Your task to perform on an android device: Open calendar and show me the second week of next month Image 0: 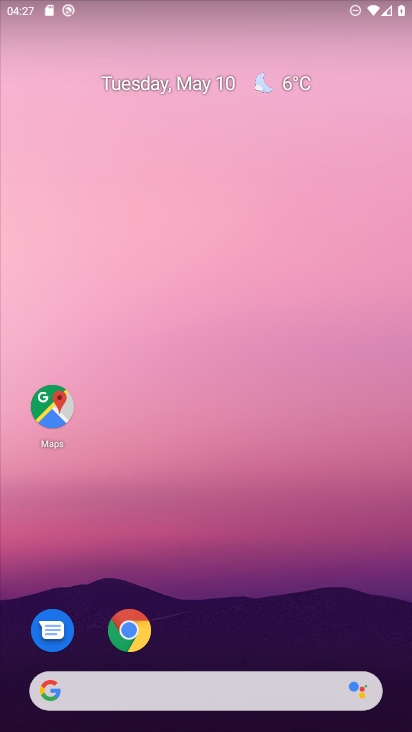
Step 0: click (162, 91)
Your task to perform on an android device: Open calendar and show me the second week of next month Image 1: 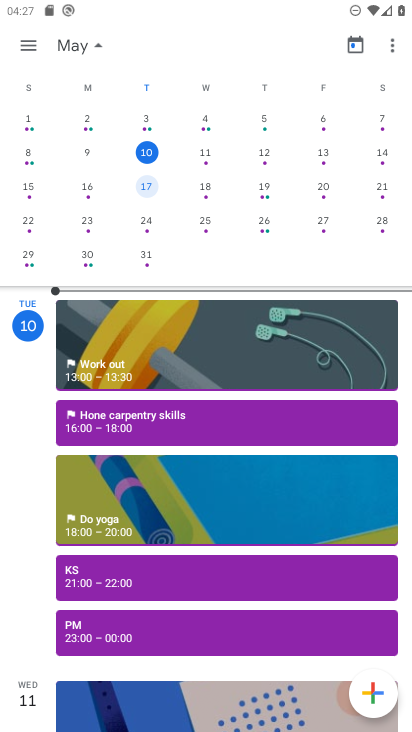
Step 1: drag from (327, 258) to (77, 65)
Your task to perform on an android device: Open calendar and show me the second week of next month Image 2: 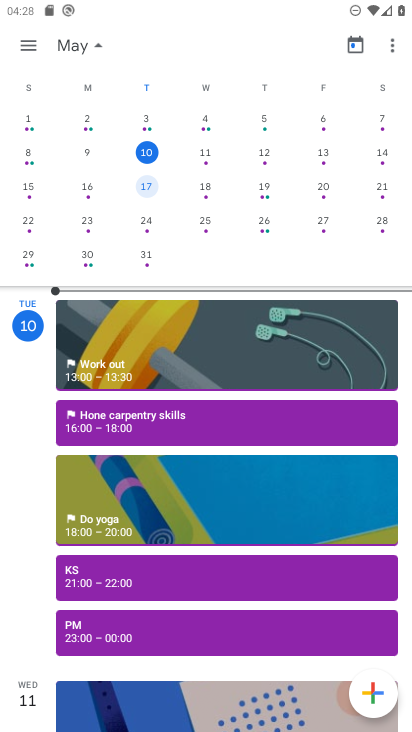
Step 2: drag from (358, 236) to (60, 141)
Your task to perform on an android device: Open calendar and show me the second week of next month Image 3: 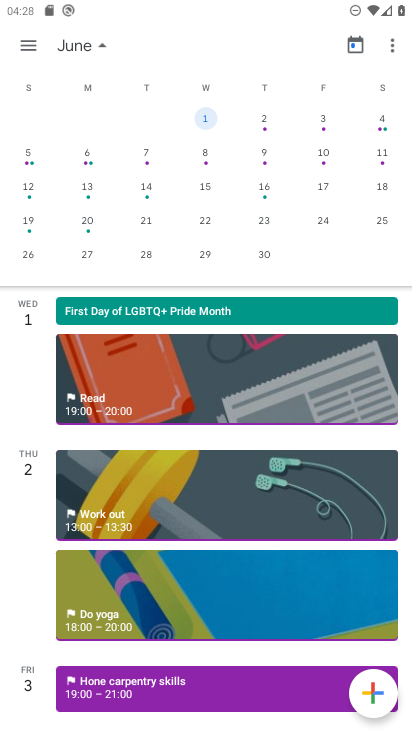
Step 3: click (218, 154)
Your task to perform on an android device: Open calendar and show me the second week of next month Image 4: 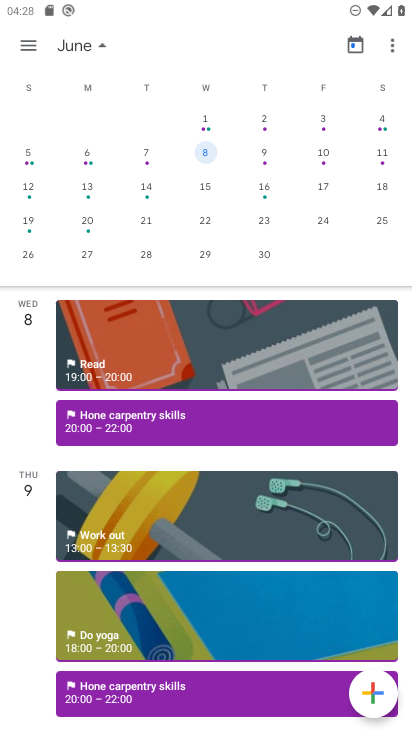
Step 4: task complete